Your task to perform on an android device: toggle translation in the chrome app Image 0: 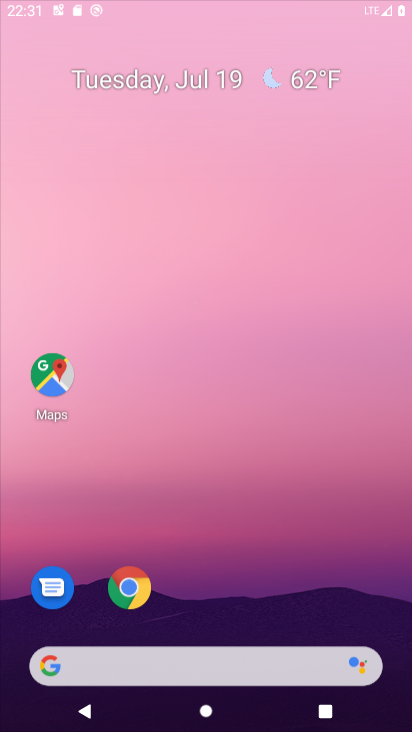
Step 0: click (173, 131)
Your task to perform on an android device: toggle translation in the chrome app Image 1: 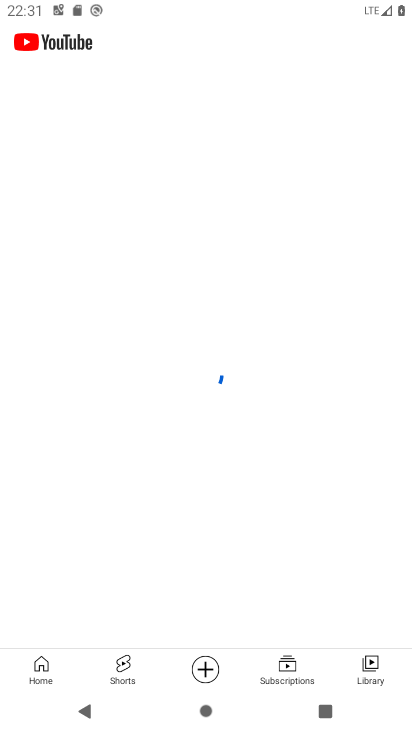
Step 1: press home button
Your task to perform on an android device: toggle translation in the chrome app Image 2: 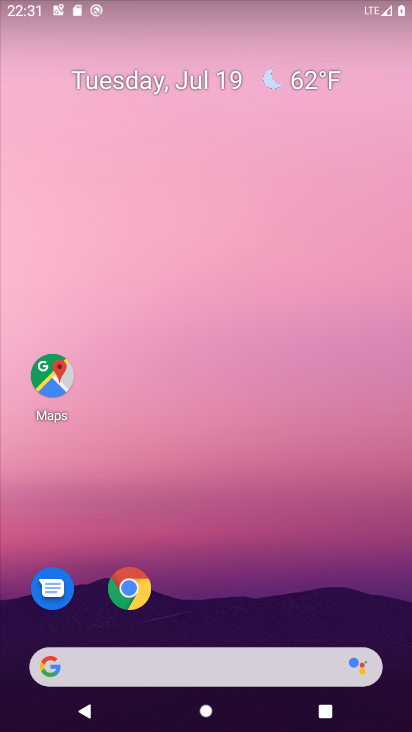
Step 2: click (130, 586)
Your task to perform on an android device: toggle translation in the chrome app Image 3: 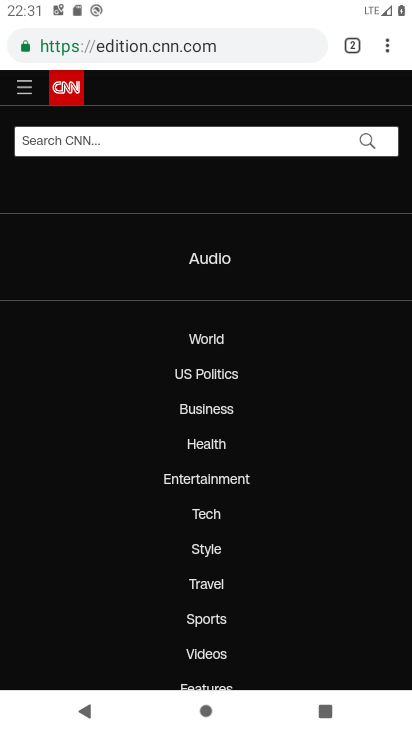
Step 3: click (385, 45)
Your task to perform on an android device: toggle translation in the chrome app Image 4: 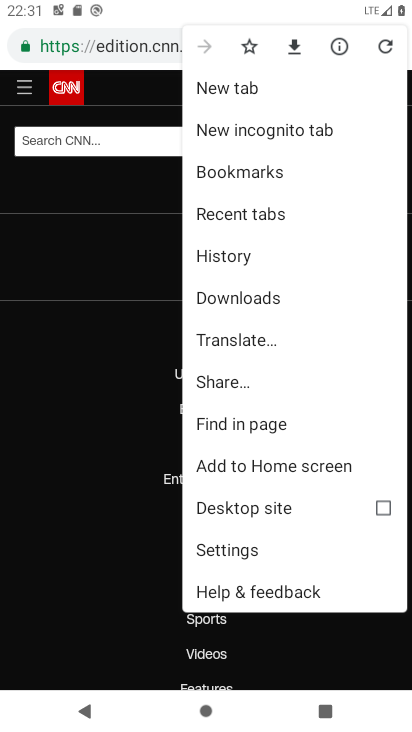
Step 4: click (258, 549)
Your task to perform on an android device: toggle translation in the chrome app Image 5: 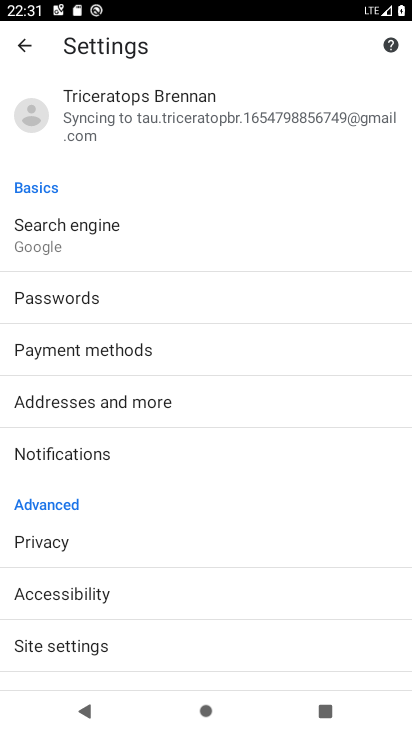
Step 5: drag from (173, 434) to (166, 365)
Your task to perform on an android device: toggle translation in the chrome app Image 6: 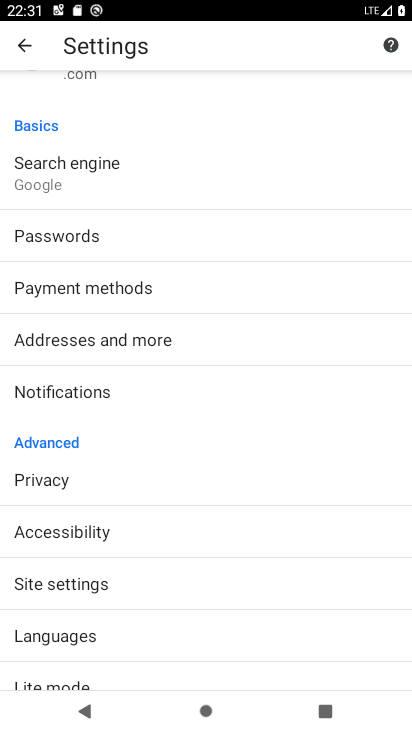
Step 6: click (73, 633)
Your task to perform on an android device: toggle translation in the chrome app Image 7: 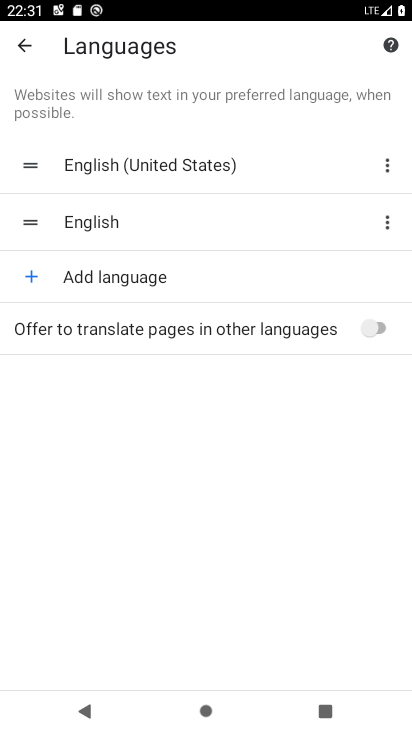
Step 7: click (380, 331)
Your task to perform on an android device: toggle translation in the chrome app Image 8: 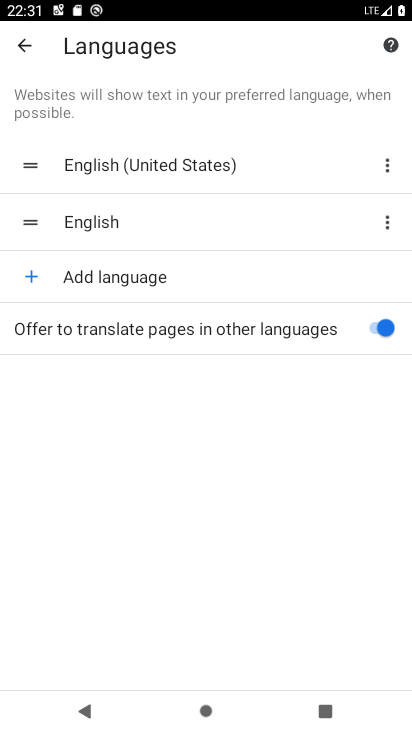
Step 8: task complete